Your task to perform on an android device: Do I have any events today? Image 0: 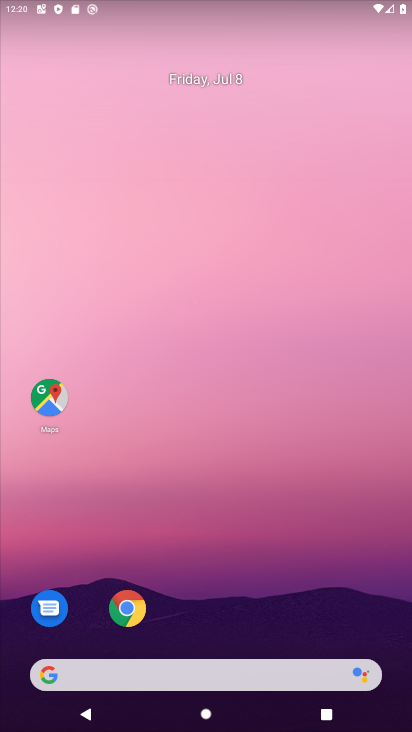
Step 0: drag from (61, 552) to (288, 0)
Your task to perform on an android device: Do I have any events today? Image 1: 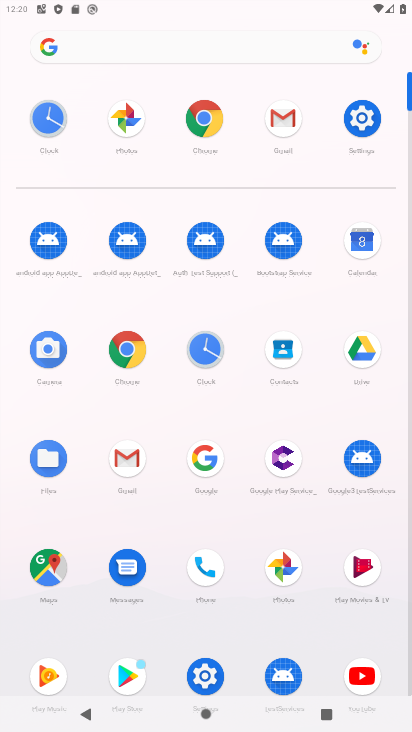
Step 1: click (349, 235)
Your task to perform on an android device: Do I have any events today? Image 2: 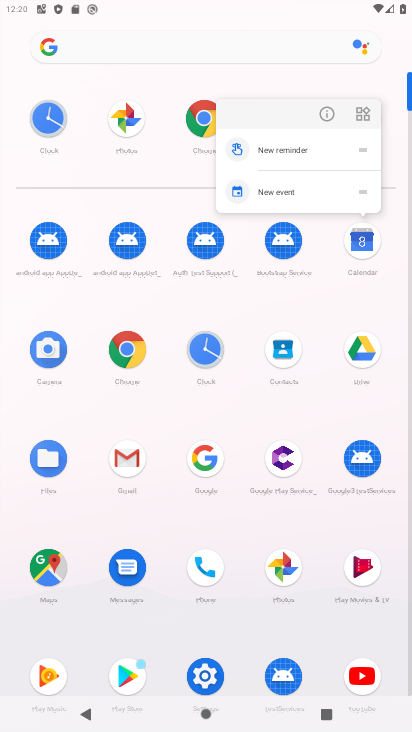
Step 2: click (369, 243)
Your task to perform on an android device: Do I have any events today? Image 3: 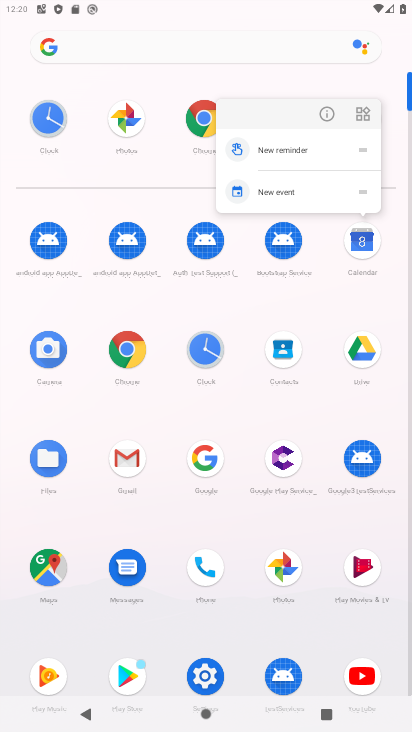
Step 3: click (354, 254)
Your task to perform on an android device: Do I have any events today? Image 4: 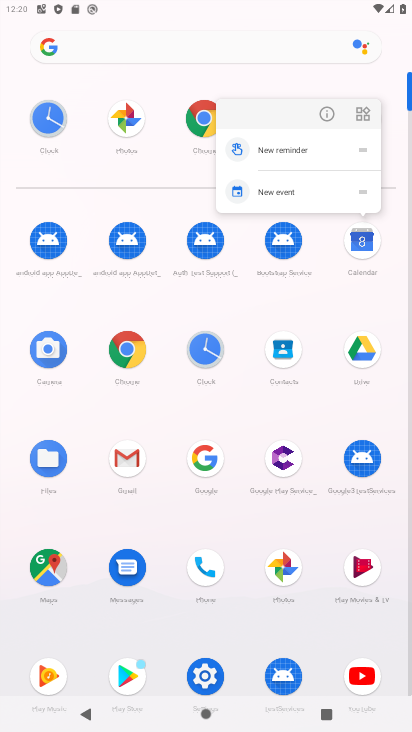
Step 4: click (359, 238)
Your task to perform on an android device: Do I have any events today? Image 5: 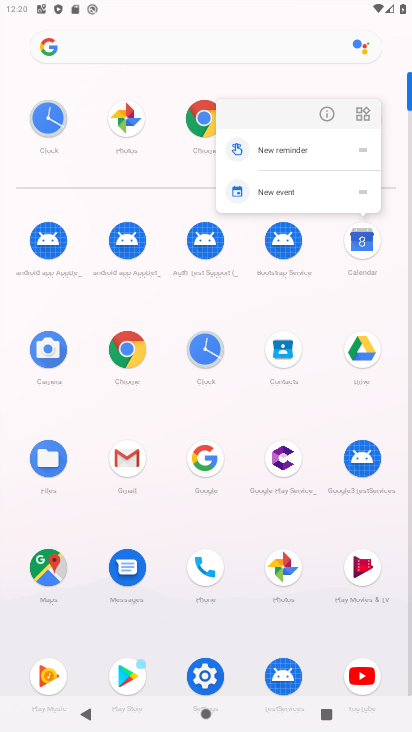
Step 5: click (356, 251)
Your task to perform on an android device: Do I have any events today? Image 6: 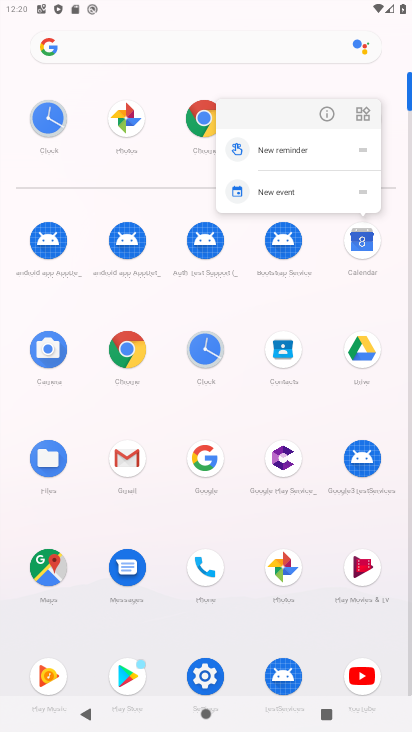
Step 6: click (355, 252)
Your task to perform on an android device: Do I have any events today? Image 7: 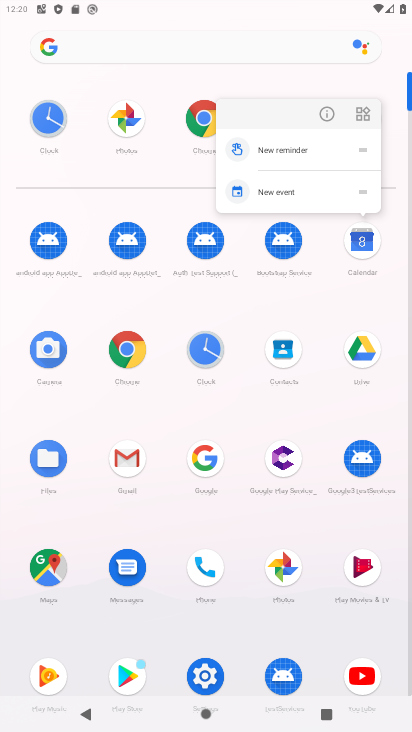
Step 7: click (354, 246)
Your task to perform on an android device: Do I have any events today? Image 8: 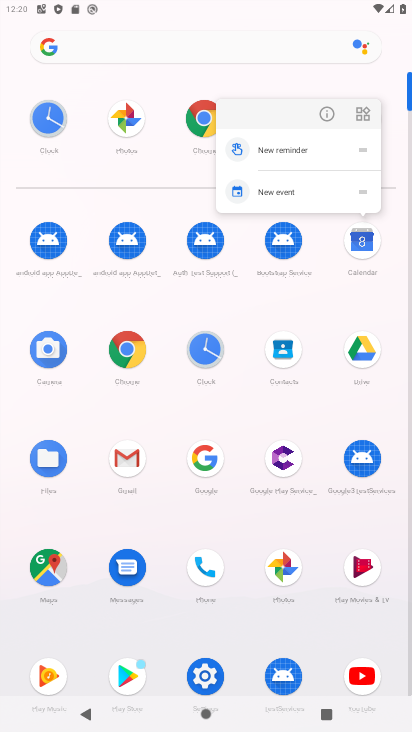
Step 8: click (365, 259)
Your task to perform on an android device: Do I have any events today? Image 9: 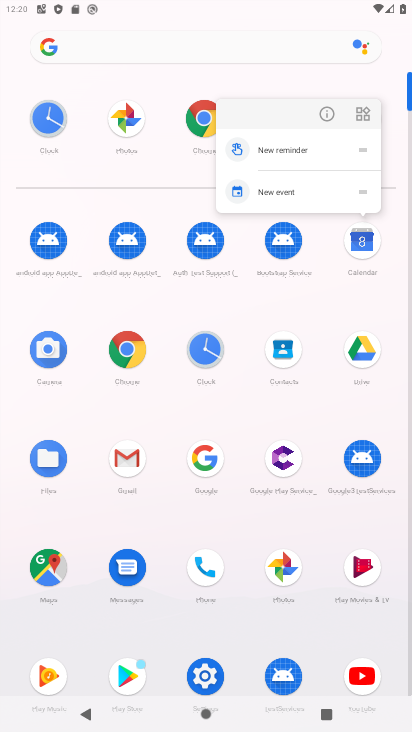
Step 9: task complete